Your task to perform on an android device: What is the recent news? Image 0: 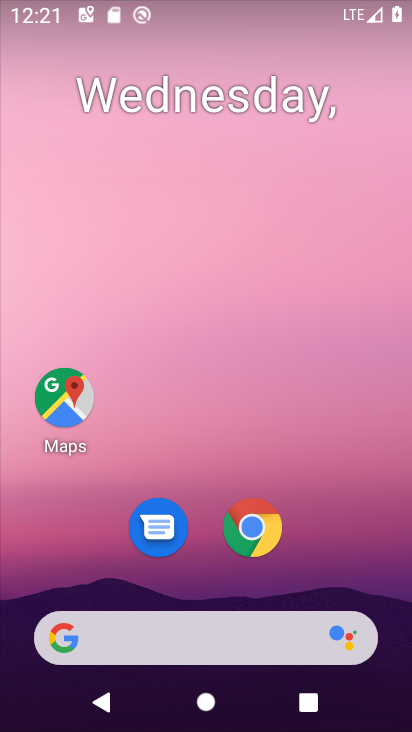
Step 0: drag from (346, 639) to (382, 1)
Your task to perform on an android device: What is the recent news? Image 1: 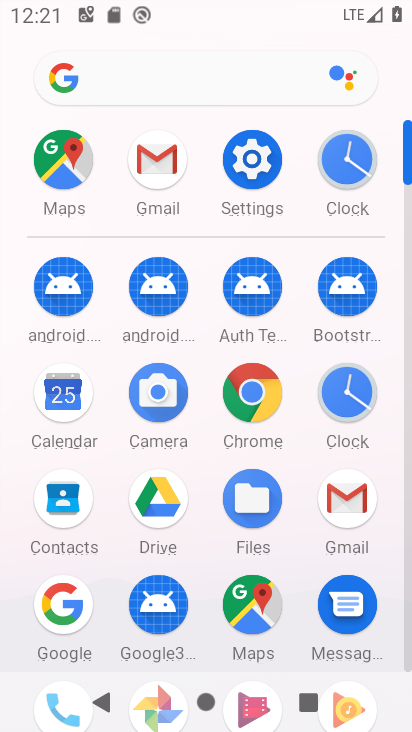
Step 1: click (247, 390)
Your task to perform on an android device: What is the recent news? Image 2: 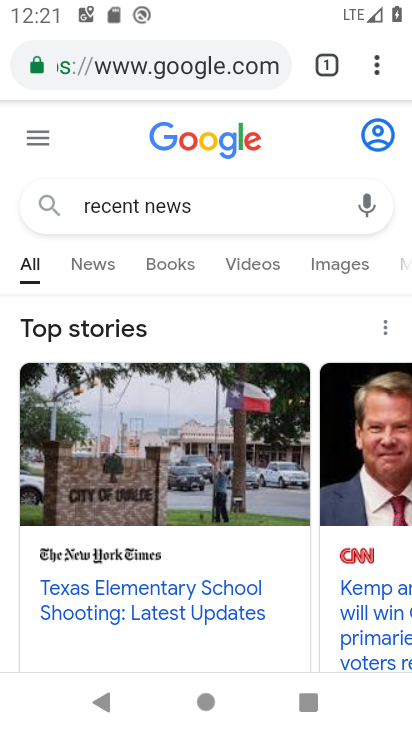
Step 2: task complete